Your task to perform on an android device: turn off notifications settings in the gmail app Image 0: 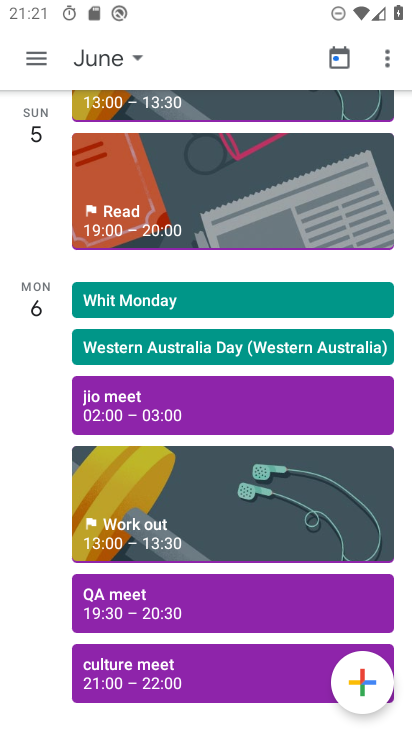
Step 0: press home button
Your task to perform on an android device: turn off notifications settings in the gmail app Image 1: 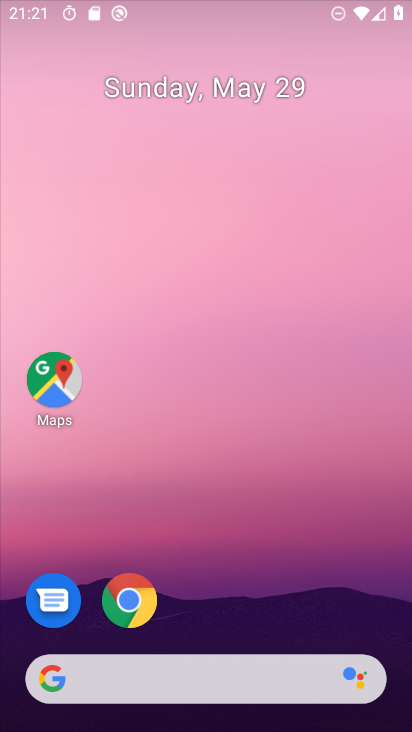
Step 1: drag from (261, 598) to (262, 112)
Your task to perform on an android device: turn off notifications settings in the gmail app Image 2: 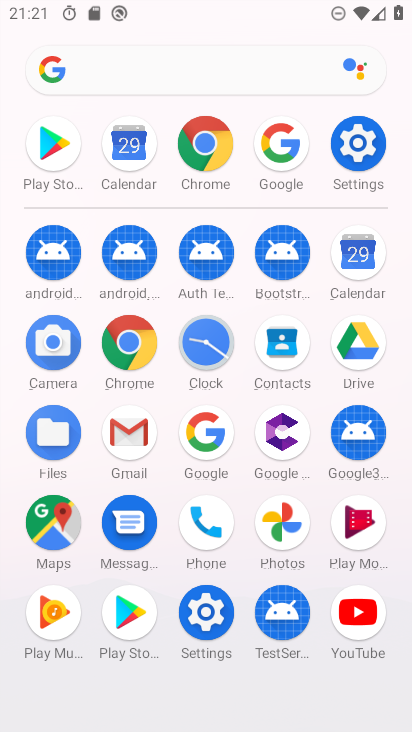
Step 2: click (110, 444)
Your task to perform on an android device: turn off notifications settings in the gmail app Image 3: 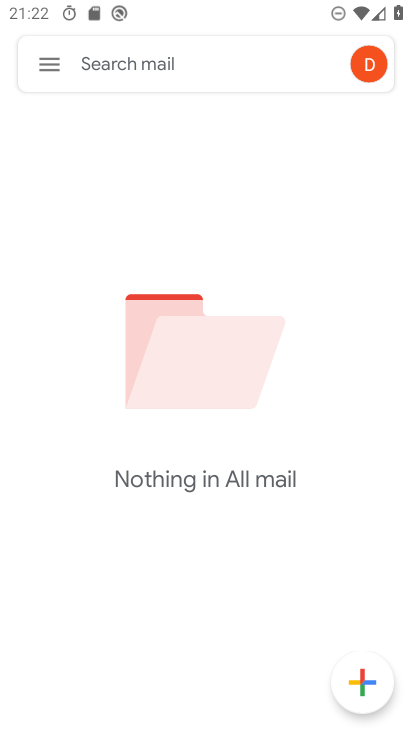
Step 3: click (71, 69)
Your task to perform on an android device: turn off notifications settings in the gmail app Image 4: 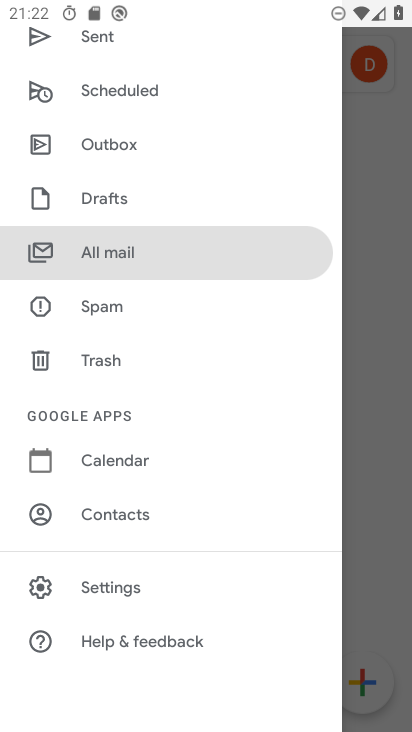
Step 4: click (101, 596)
Your task to perform on an android device: turn off notifications settings in the gmail app Image 5: 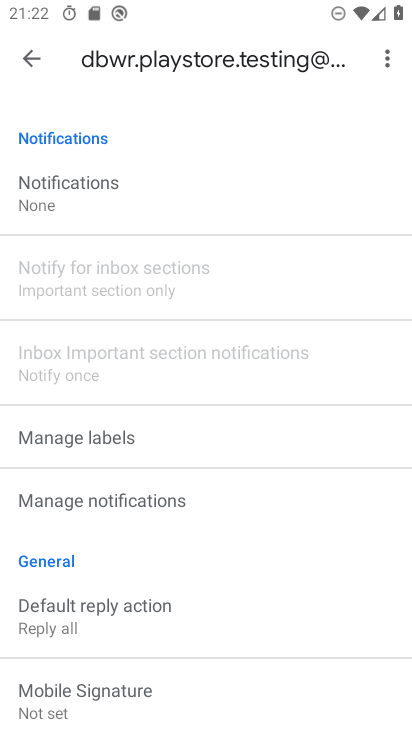
Step 5: click (122, 193)
Your task to perform on an android device: turn off notifications settings in the gmail app Image 6: 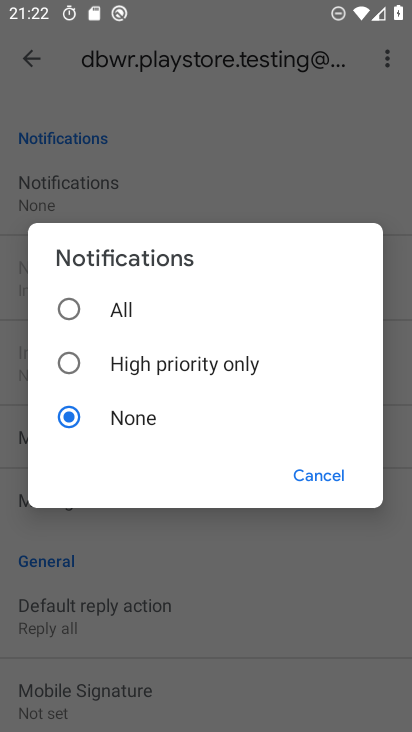
Step 6: task complete